Your task to perform on an android device: Turn on notifications for the Google Maps app Image 0: 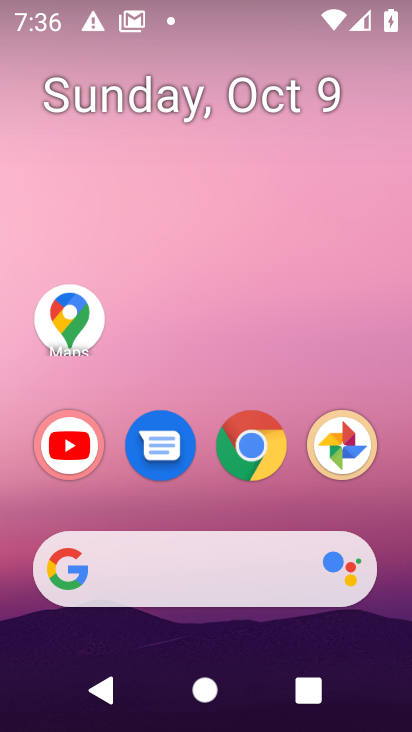
Step 0: click (68, 318)
Your task to perform on an android device: Turn on notifications for the Google Maps app Image 1: 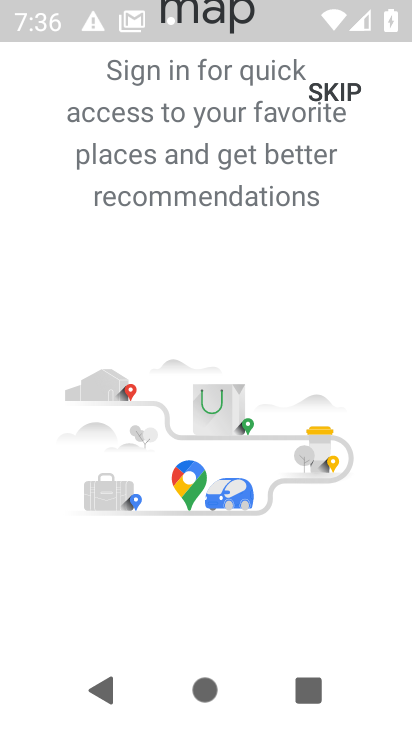
Step 1: click (326, 88)
Your task to perform on an android device: Turn on notifications for the Google Maps app Image 2: 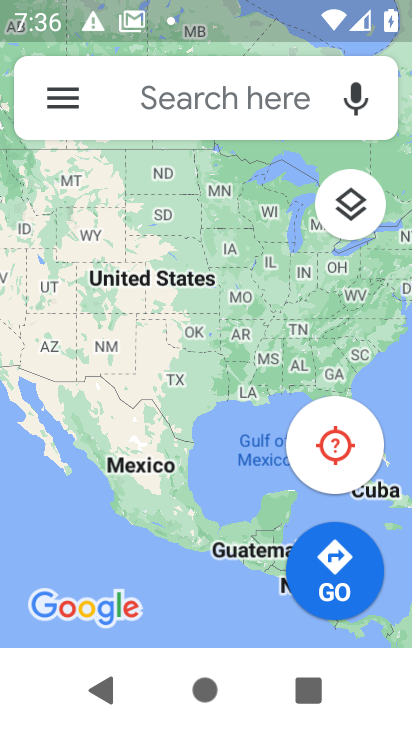
Step 2: click (52, 97)
Your task to perform on an android device: Turn on notifications for the Google Maps app Image 3: 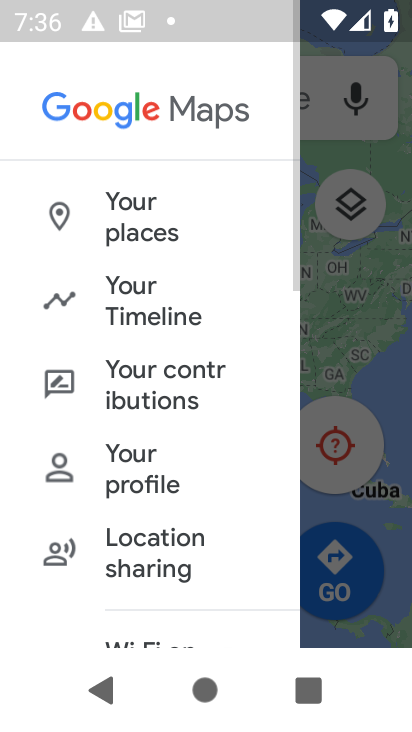
Step 3: drag from (119, 561) to (133, 258)
Your task to perform on an android device: Turn on notifications for the Google Maps app Image 4: 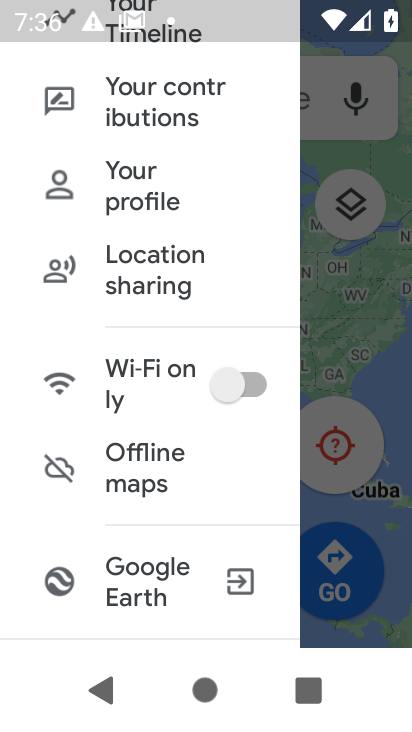
Step 4: drag from (164, 568) to (144, 259)
Your task to perform on an android device: Turn on notifications for the Google Maps app Image 5: 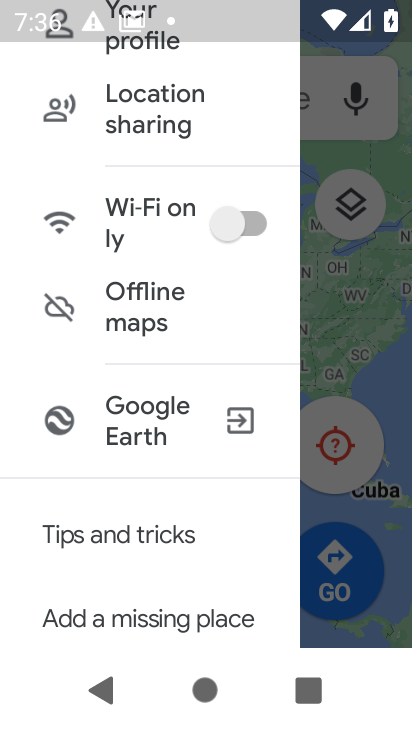
Step 5: drag from (138, 614) to (140, 328)
Your task to perform on an android device: Turn on notifications for the Google Maps app Image 6: 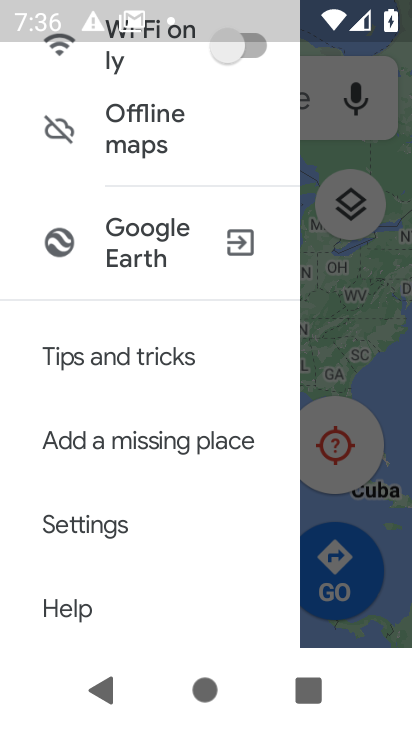
Step 6: click (94, 516)
Your task to perform on an android device: Turn on notifications for the Google Maps app Image 7: 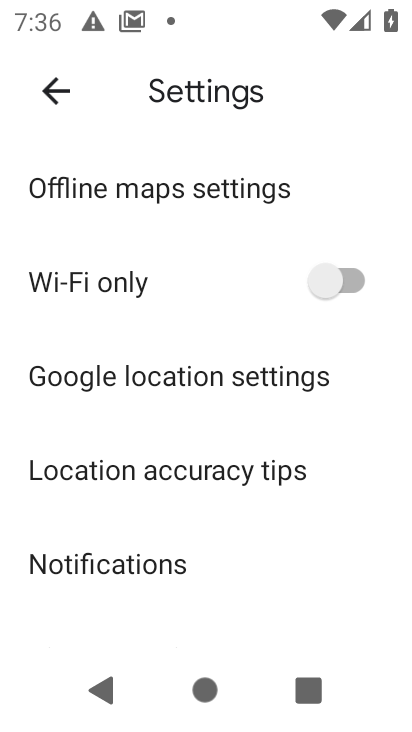
Step 7: drag from (130, 582) to (122, 310)
Your task to perform on an android device: Turn on notifications for the Google Maps app Image 8: 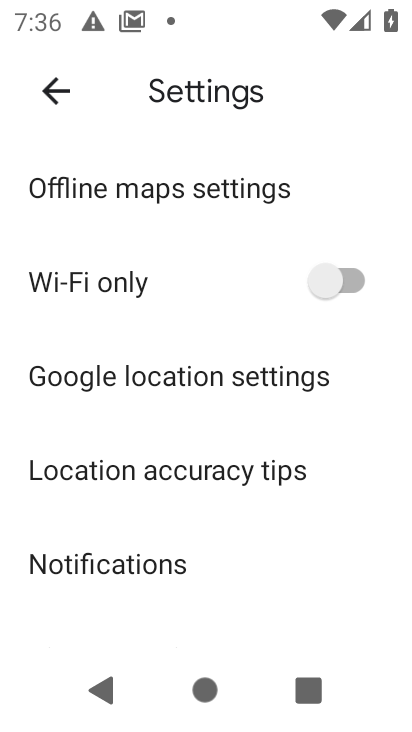
Step 8: click (120, 565)
Your task to perform on an android device: Turn on notifications for the Google Maps app Image 9: 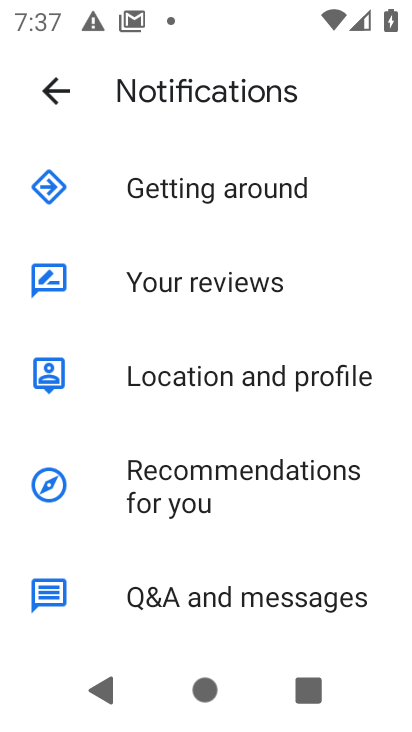
Step 9: drag from (198, 595) to (190, 245)
Your task to perform on an android device: Turn on notifications for the Google Maps app Image 10: 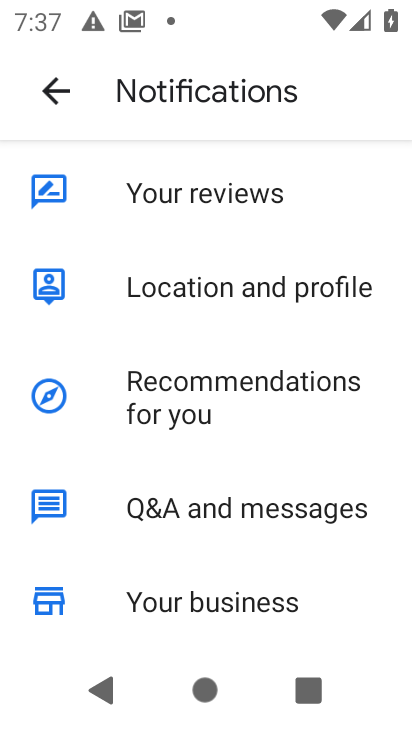
Step 10: drag from (198, 564) to (198, 247)
Your task to perform on an android device: Turn on notifications for the Google Maps app Image 11: 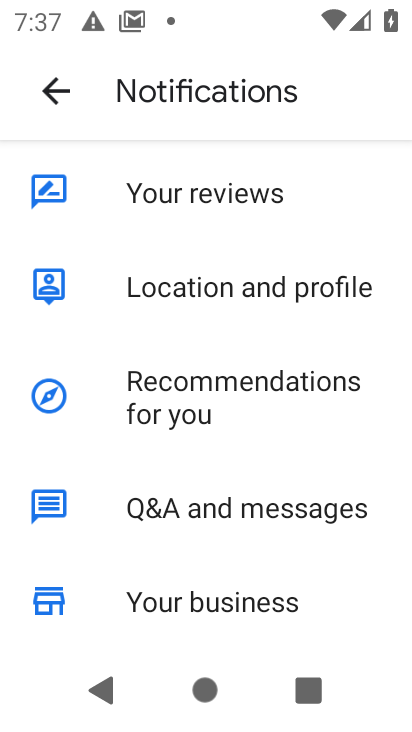
Step 11: drag from (202, 187) to (202, 559)
Your task to perform on an android device: Turn on notifications for the Google Maps app Image 12: 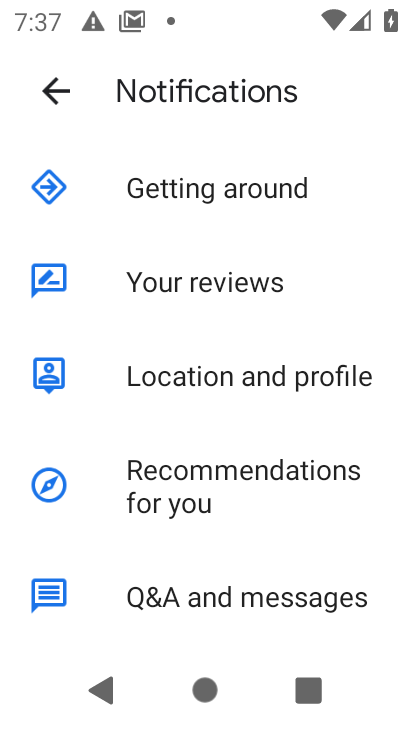
Step 12: click (182, 372)
Your task to perform on an android device: Turn on notifications for the Google Maps app Image 13: 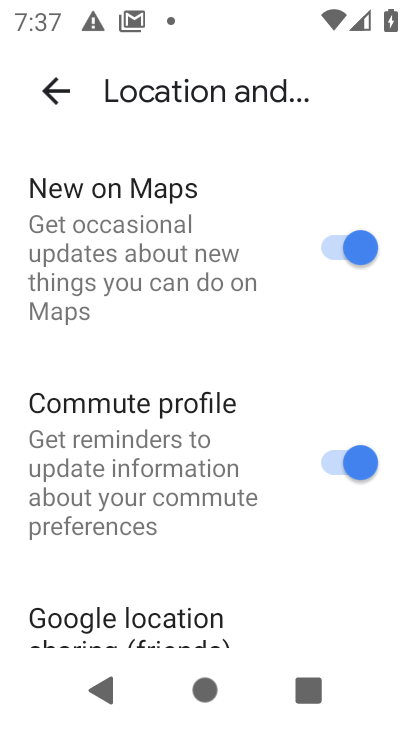
Step 13: task complete